Your task to perform on an android device: Open Reddit.com Image 0: 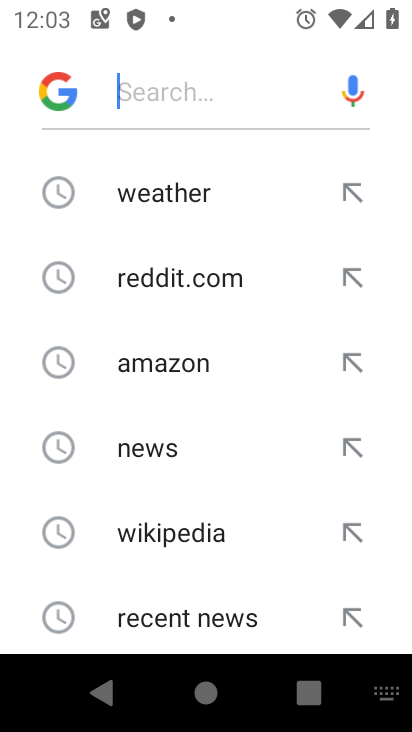
Step 0: click (187, 287)
Your task to perform on an android device: Open Reddit.com Image 1: 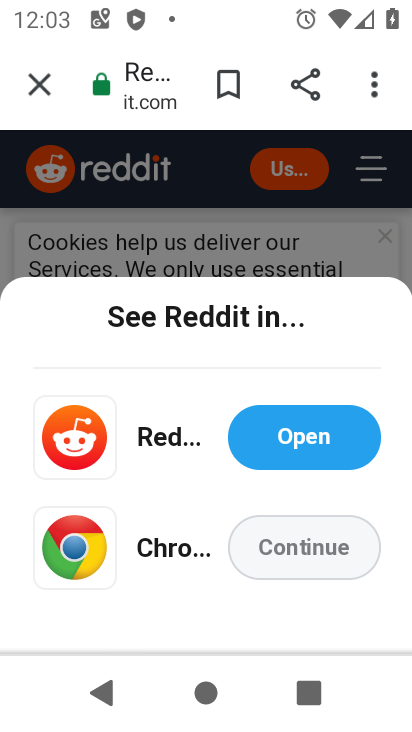
Step 1: task complete